Your task to perform on an android device: Go to Google Image 0: 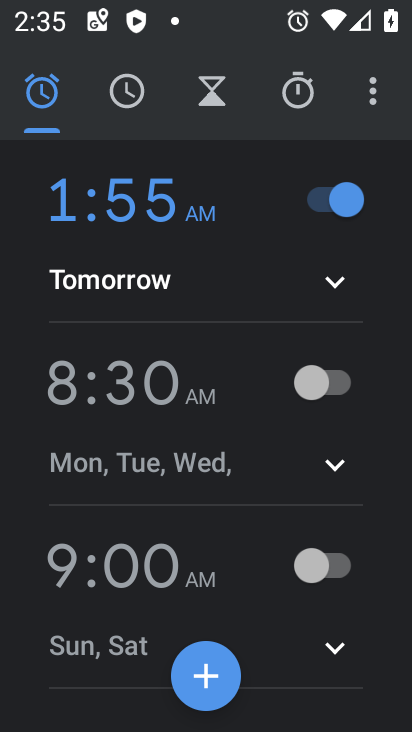
Step 0: press home button
Your task to perform on an android device: Go to Google Image 1: 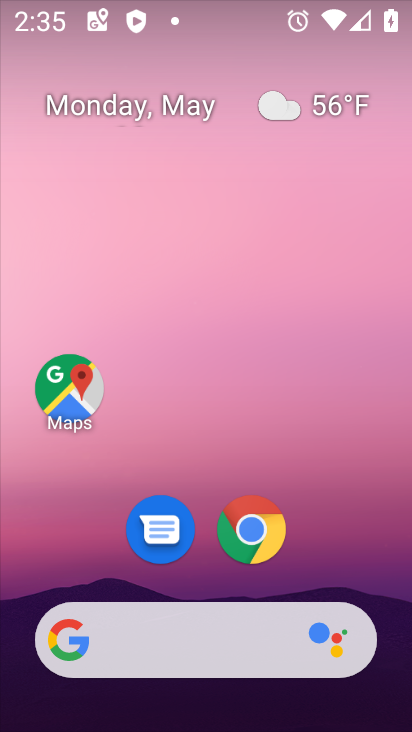
Step 1: drag from (322, 587) to (339, 0)
Your task to perform on an android device: Go to Google Image 2: 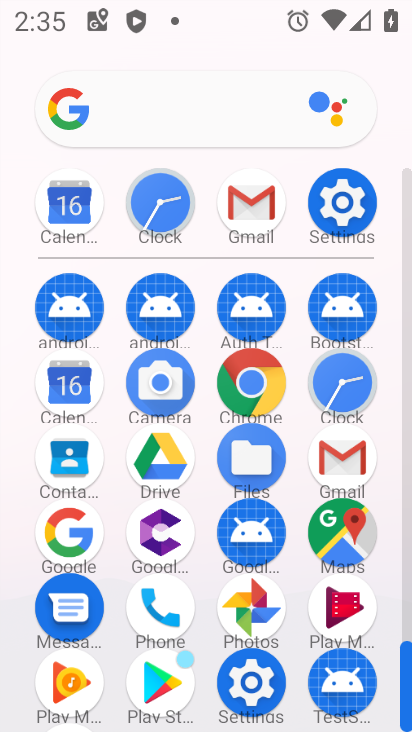
Step 2: click (71, 530)
Your task to perform on an android device: Go to Google Image 3: 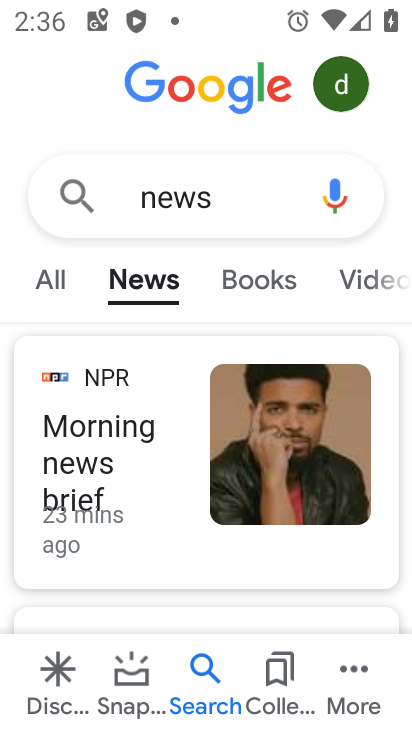
Step 3: task complete